Your task to perform on an android device: When is my next meeting? Image 0: 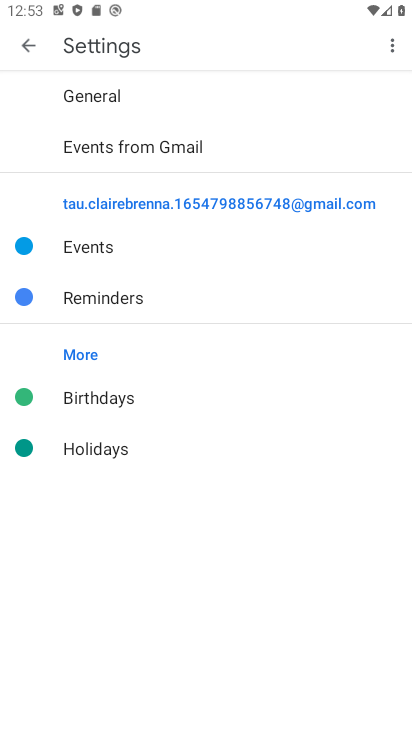
Step 0: press home button
Your task to perform on an android device: When is my next meeting? Image 1: 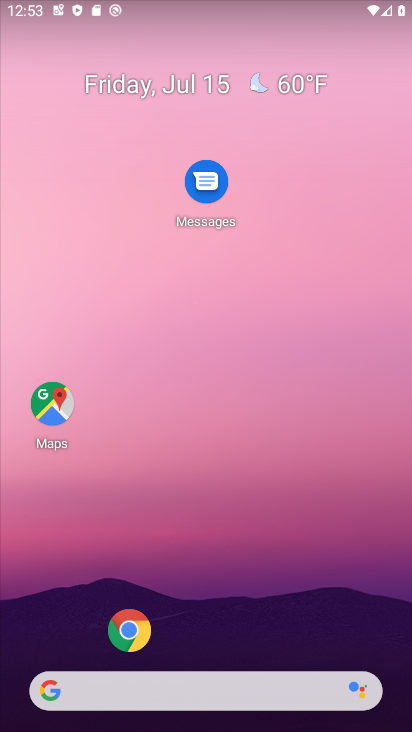
Step 1: drag from (41, 635) to (179, 253)
Your task to perform on an android device: When is my next meeting? Image 2: 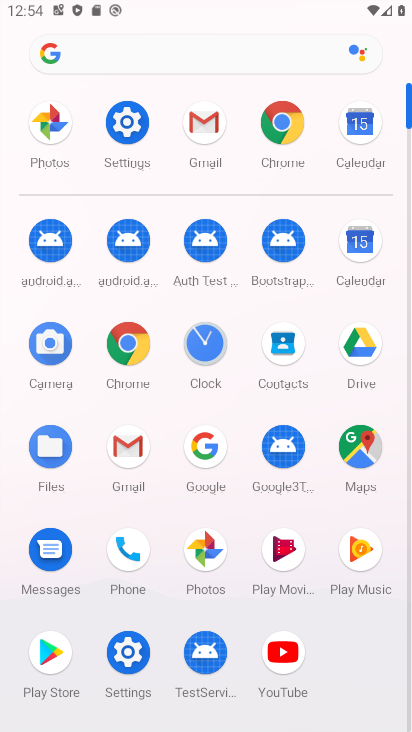
Step 2: click (361, 244)
Your task to perform on an android device: When is my next meeting? Image 3: 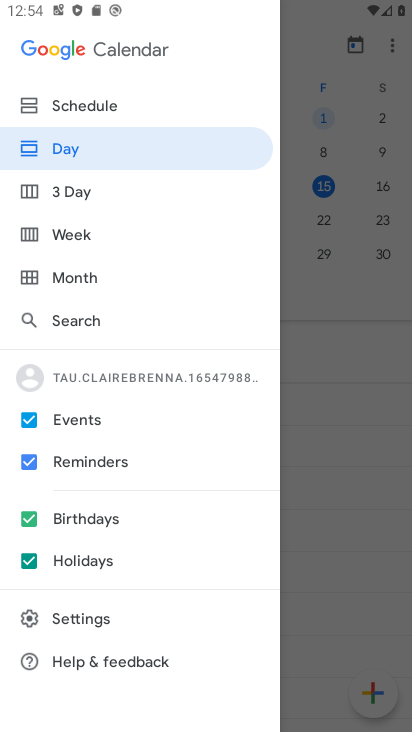
Step 3: click (313, 305)
Your task to perform on an android device: When is my next meeting? Image 4: 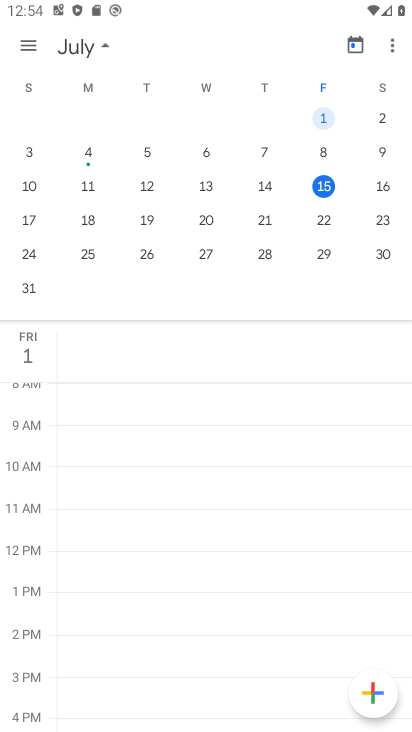
Step 4: task complete